Your task to perform on an android device: turn smart compose on in the gmail app Image 0: 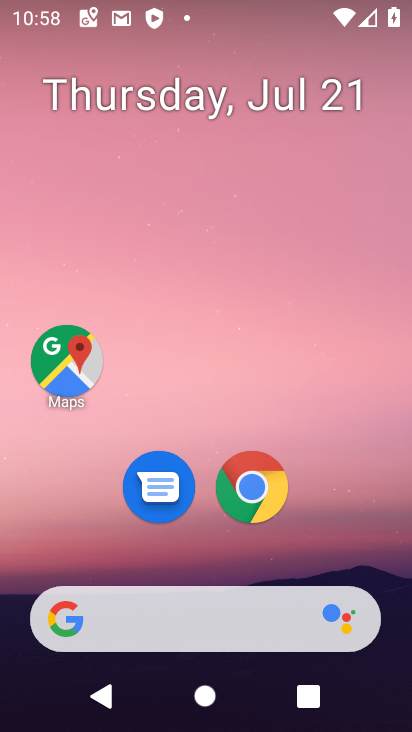
Step 0: drag from (162, 501) to (205, 0)
Your task to perform on an android device: turn smart compose on in the gmail app Image 1: 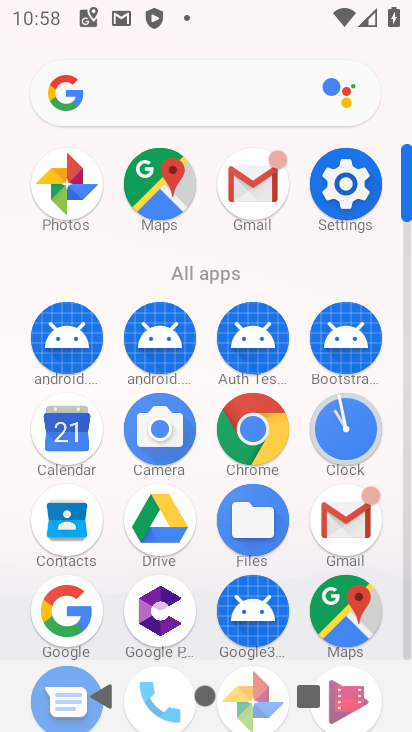
Step 1: click (266, 192)
Your task to perform on an android device: turn smart compose on in the gmail app Image 2: 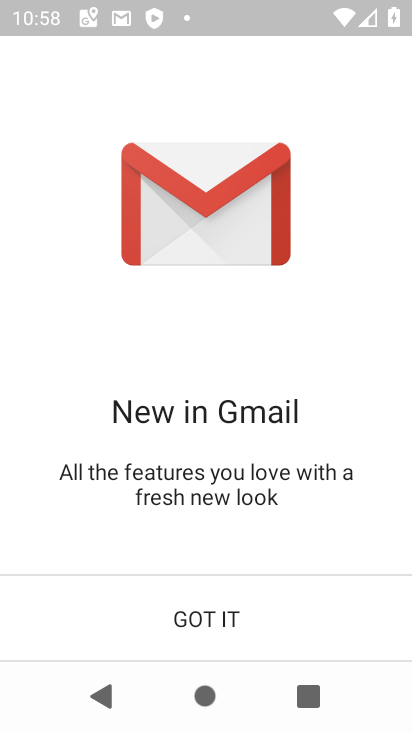
Step 2: click (198, 628)
Your task to perform on an android device: turn smart compose on in the gmail app Image 3: 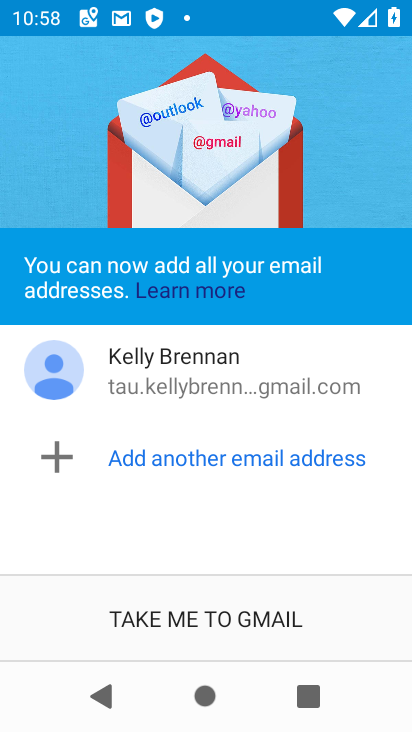
Step 3: click (207, 608)
Your task to perform on an android device: turn smart compose on in the gmail app Image 4: 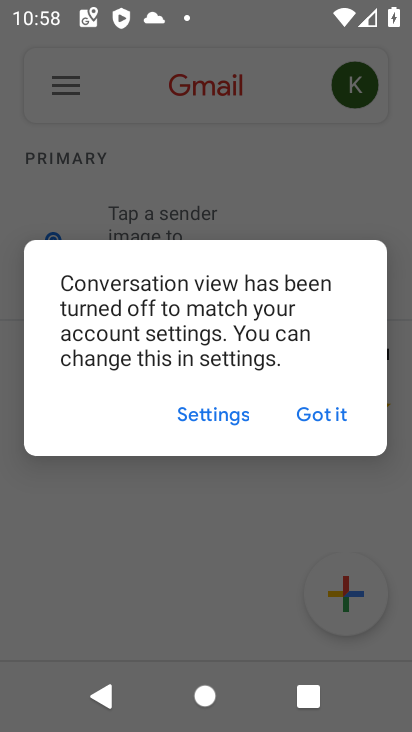
Step 4: click (319, 417)
Your task to perform on an android device: turn smart compose on in the gmail app Image 5: 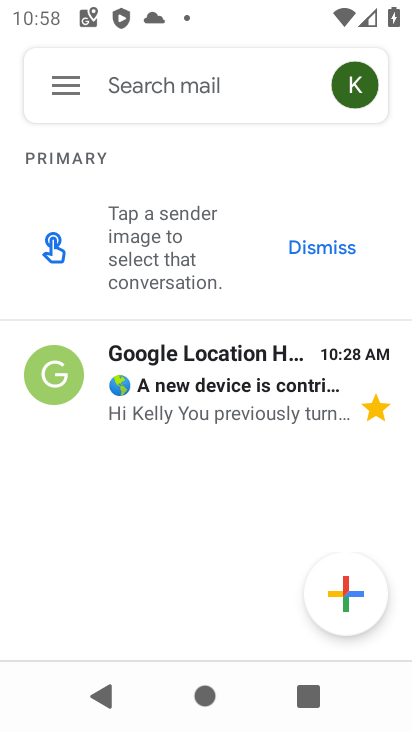
Step 5: click (64, 77)
Your task to perform on an android device: turn smart compose on in the gmail app Image 6: 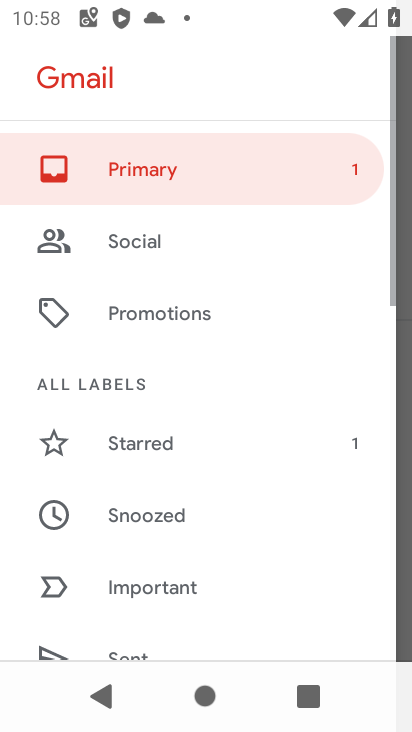
Step 6: drag from (136, 592) to (245, 59)
Your task to perform on an android device: turn smart compose on in the gmail app Image 7: 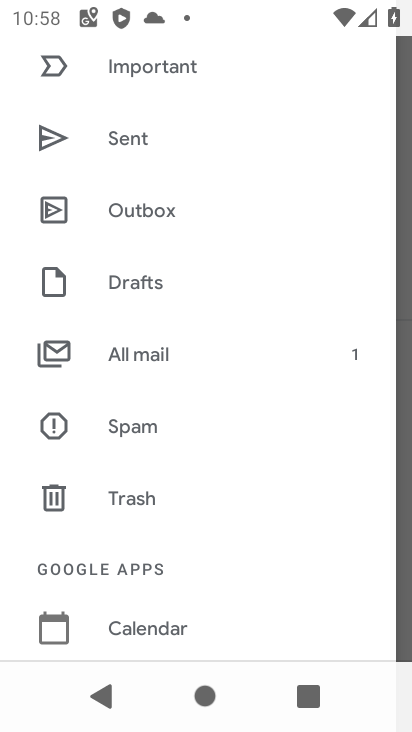
Step 7: drag from (159, 567) to (234, 83)
Your task to perform on an android device: turn smart compose on in the gmail app Image 8: 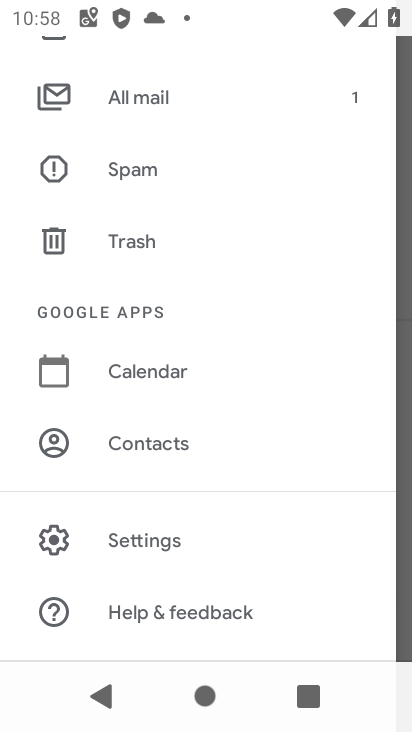
Step 8: click (168, 536)
Your task to perform on an android device: turn smart compose on in the gmail app Image 9: 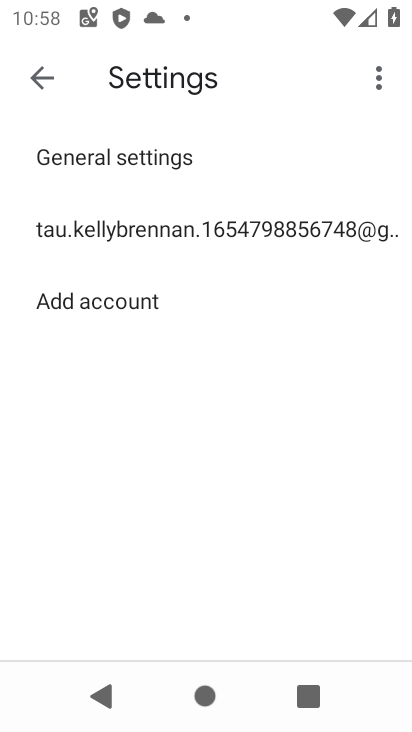
Step 9: click (188, 229)
Your task to perform on an android device: turn smart compose on in the gmail app Image 10: 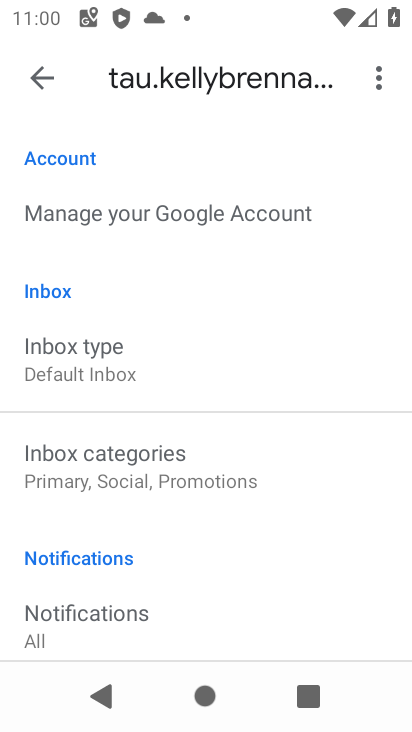
Step 10: task complete